Your task to perform on an android device: Open calendar and show me the third week of next month Image 0: 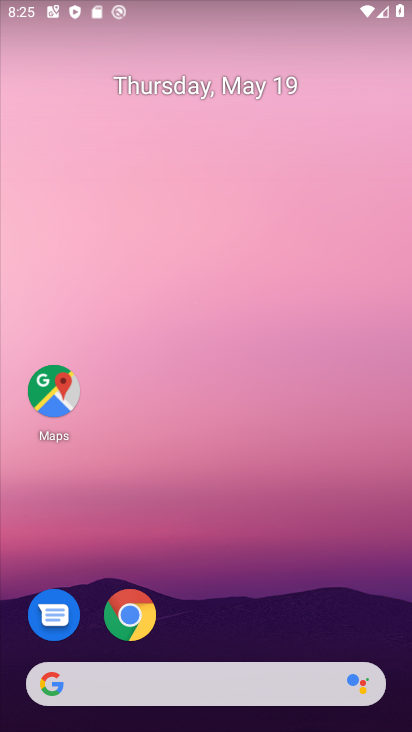
Step 0: drag from (225, 667) to (255, 116)
Your task to perform on an android device: Open calendar and show me the third week of next month Image 1: 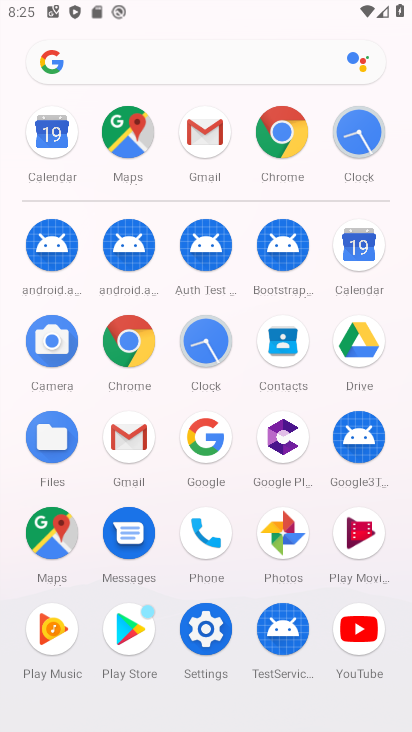
Step 1: click (349, 257)
Your task to perform on an android device: Open calendar and show me the third week of next month Image 2: 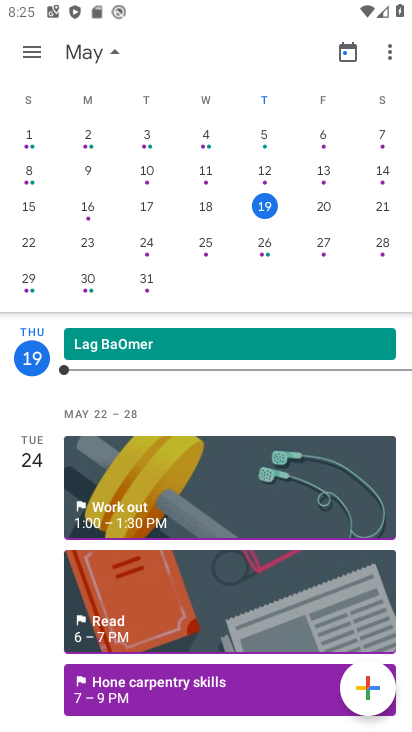
Step 2: drag from (371, 220) to (28, 213)
Your task to perform on an android device: Open calendar and show me the third week of next month Image 3: 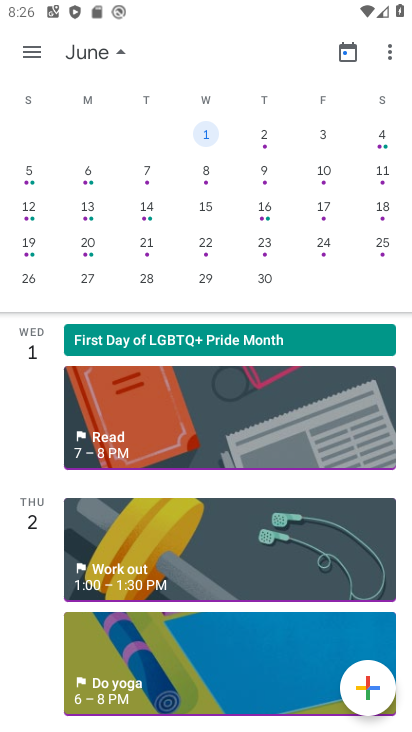
Step 3: click (196, 256)
Your task to perform on an android device: Open calendar and show me the third week of next month Image 4: 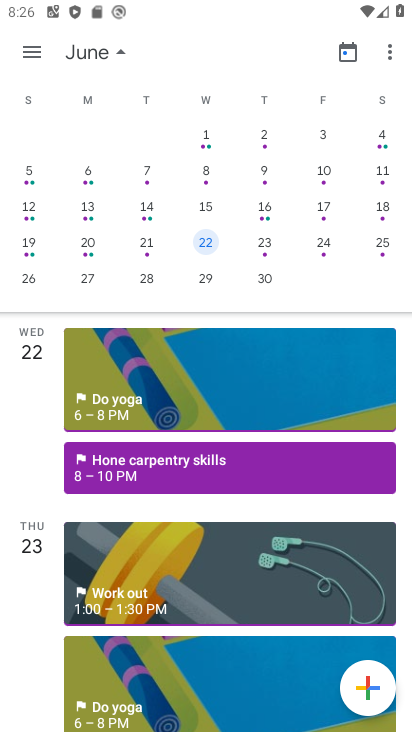
Step 4: click (29, 251)
Your task to perform on an android device: Open calendar and show me the third week of next month Image 5: 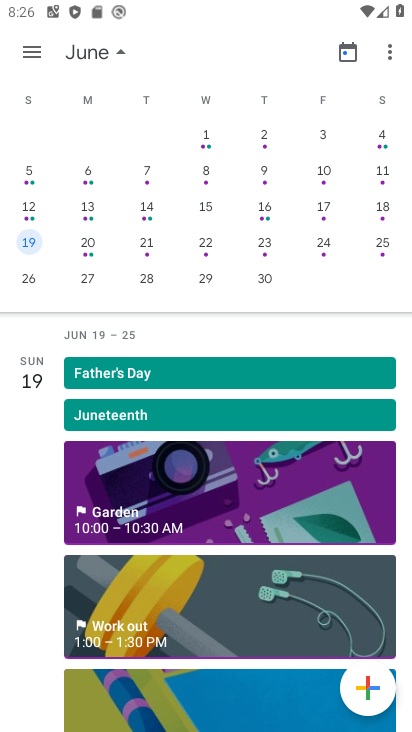
Step 5: task complete